Your task to perform on an android device: Show me the alarms in the clock app Image 0: 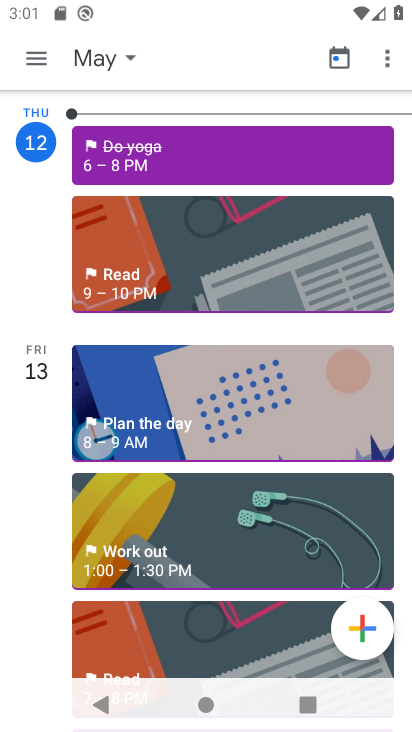
Step 0: press home button
Your task to perform on an android device: Show me the alarms in the clock app Image 1: 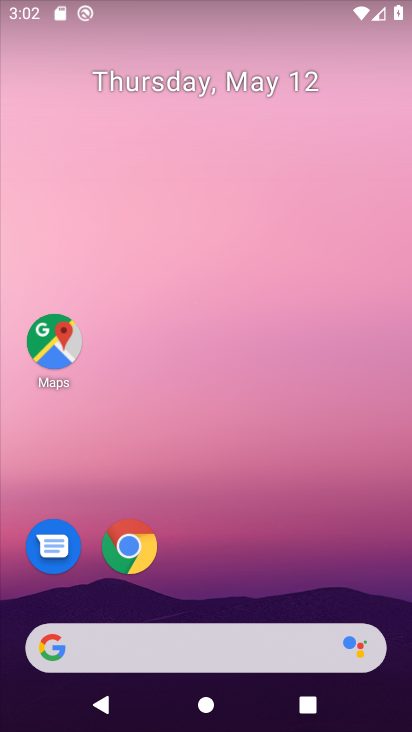
Step 1: drag from (266, 412) to (282, 316)
Your task to perform on an android device: Show me the alarms in the clock app Image 2: 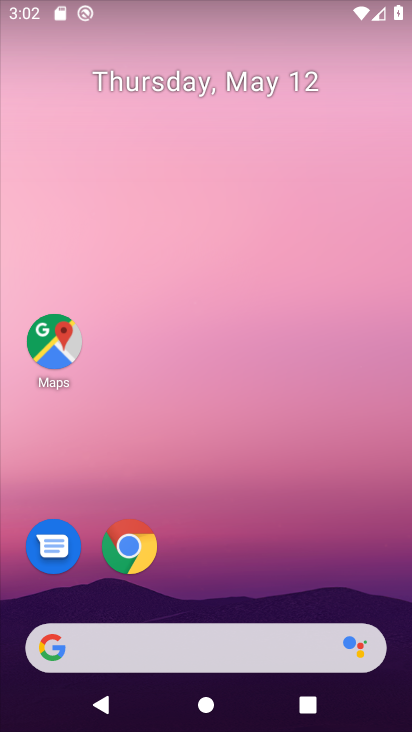
Step 2: drag from (240, 515) to (251, 242)
Your task to perform on an android device: Show me the alarms in the clock app Image 3: 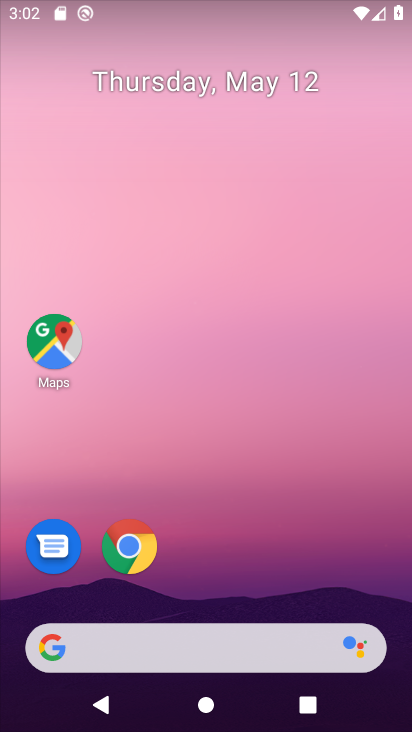
Step 3: drag from (206, 587) to (248, 256)
Your task to perform on an android device: Show me the alarms in the clock app Image 4: 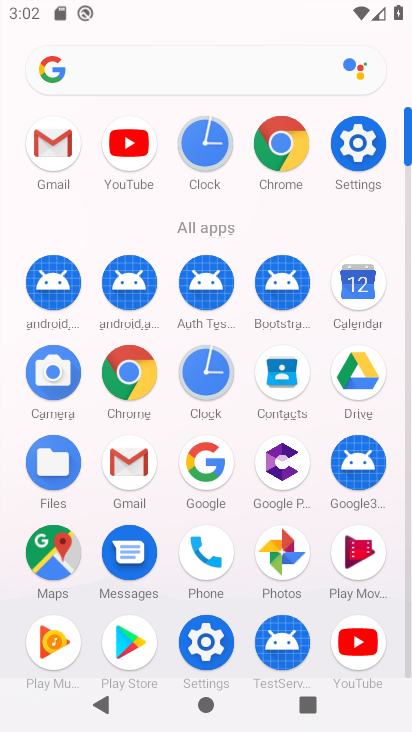
Step 4: click (203, 362)
Your task to perform on an android device: Show me the alarms in the clock app Image 5: 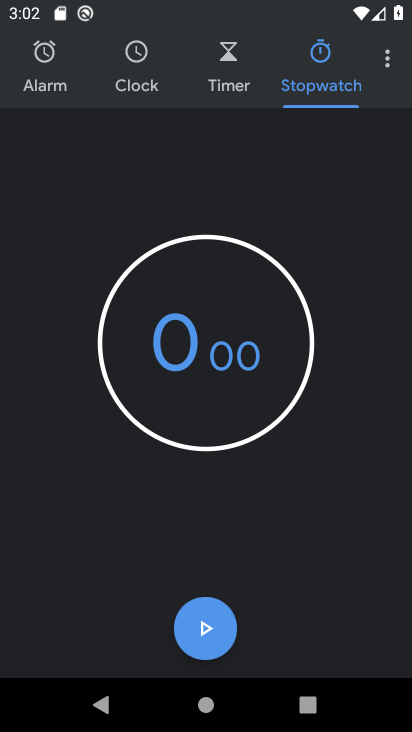
Step 5: click (41, 74)
Your task to perform on an android device: Show me the alarms in the clock app Image 6: 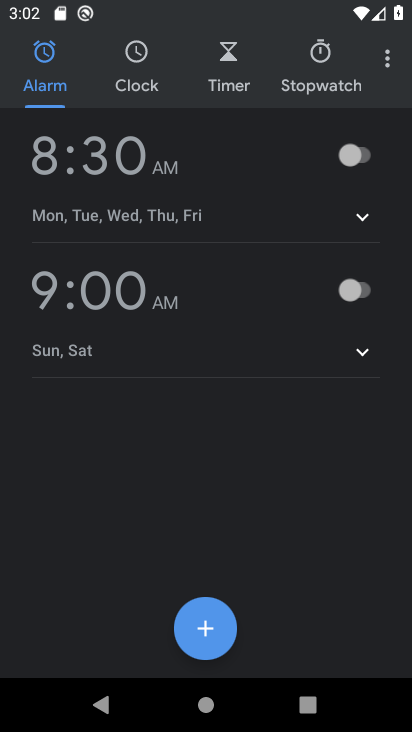
Step 6: task complete